Your task to perform on an android device: set the timer Image 0: 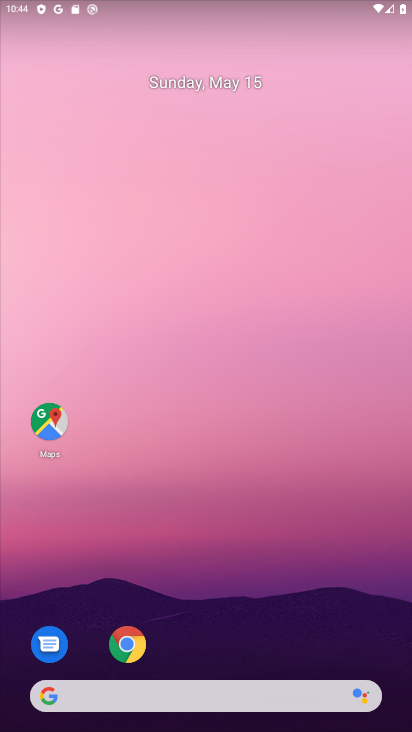
Step 0: drag from (231, 634) to (240, 126)
Your task to perform on an android device: set the timer Image 1: 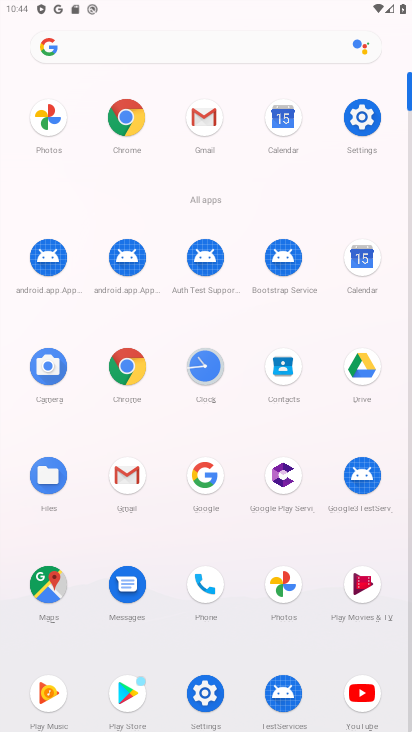
Step 1: click (197, 369)
Your task to perform on an android device: set the timer Image 2: 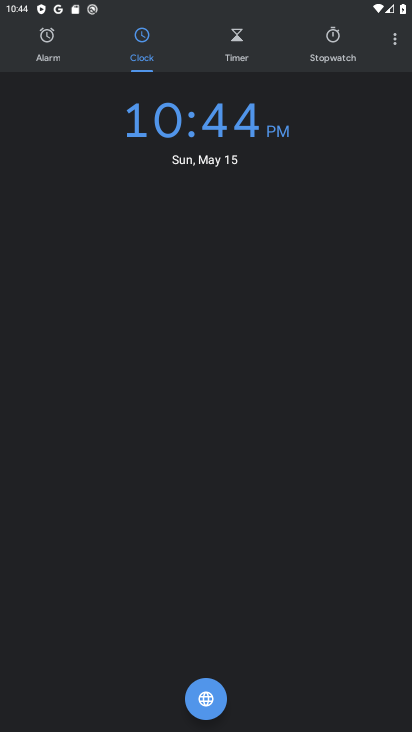
Step 2: click (243, 60)
Your task to perform on an android device: set the timer Image 3: 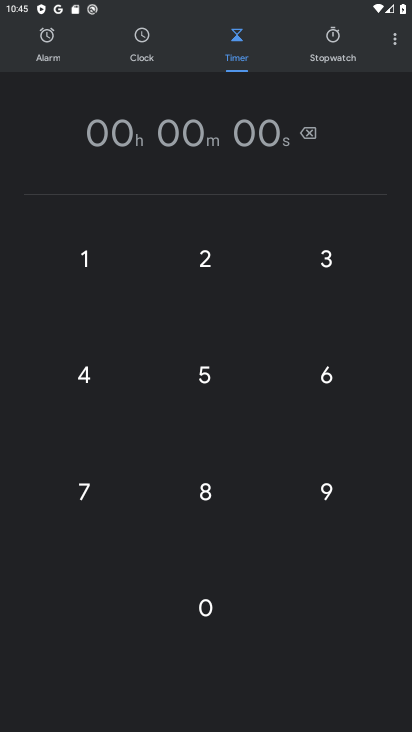
Step 3: type "100000"
Your task to perform on an android device: set the timer Image 4: 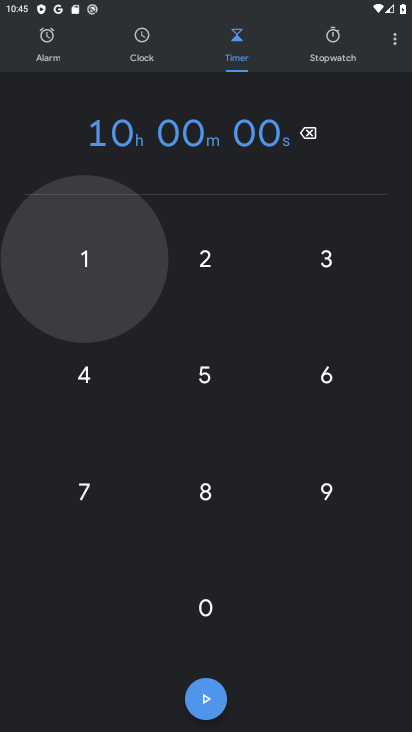
Step 4: click (218, 698)
Your task to perform on an android device: set the timer Image 5: 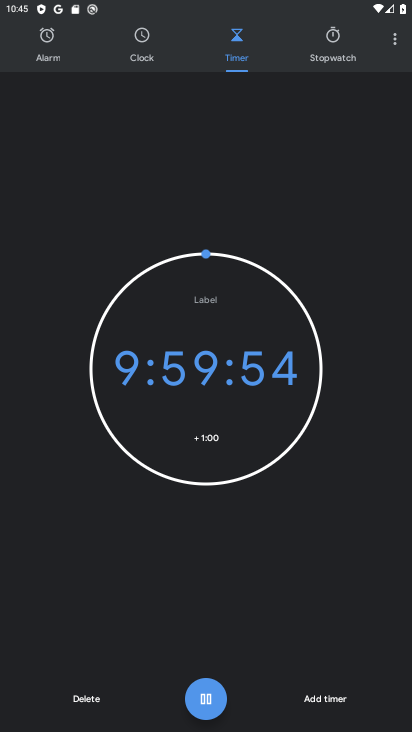
Step 5: task complete